Your task to perform on an android device: open app "Google Maps" Image 0: 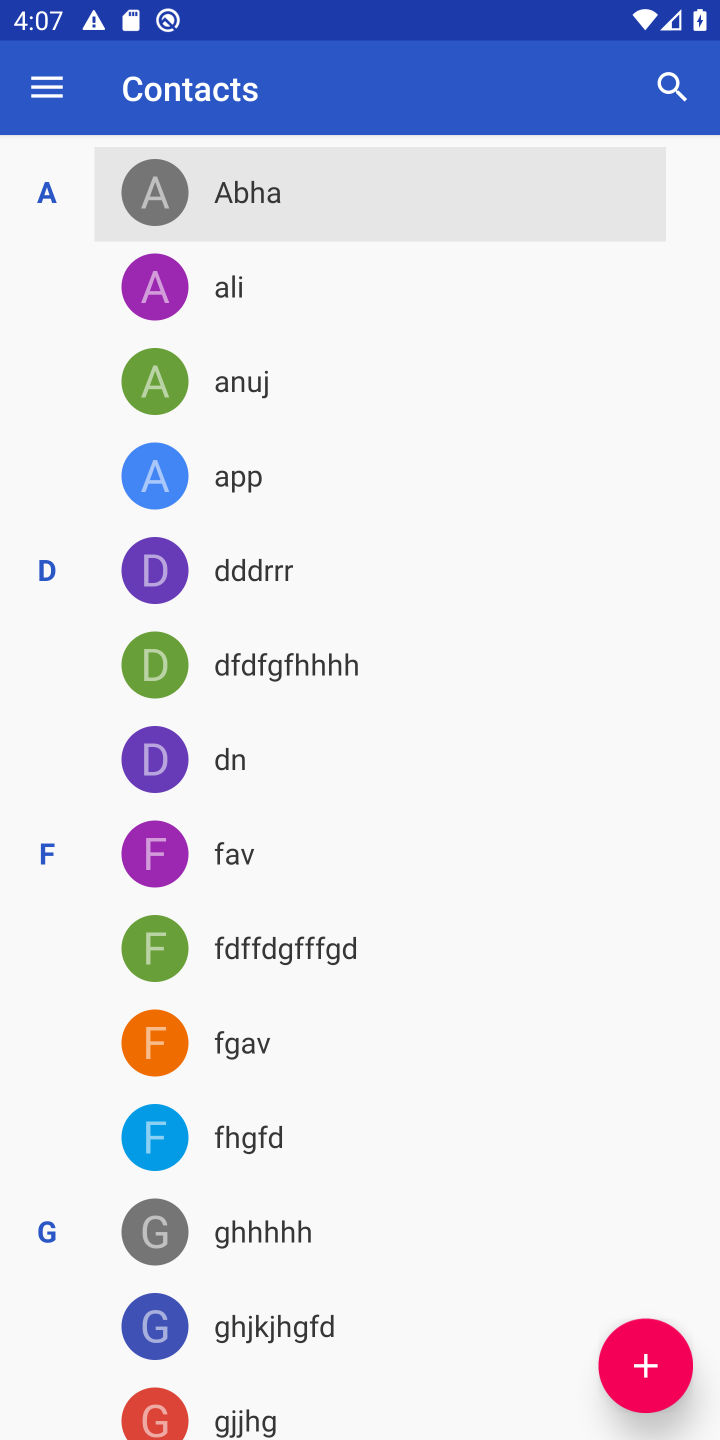
Step 0: press home button
Your task to perform on an android device: open app "Google Maps" Image 1: 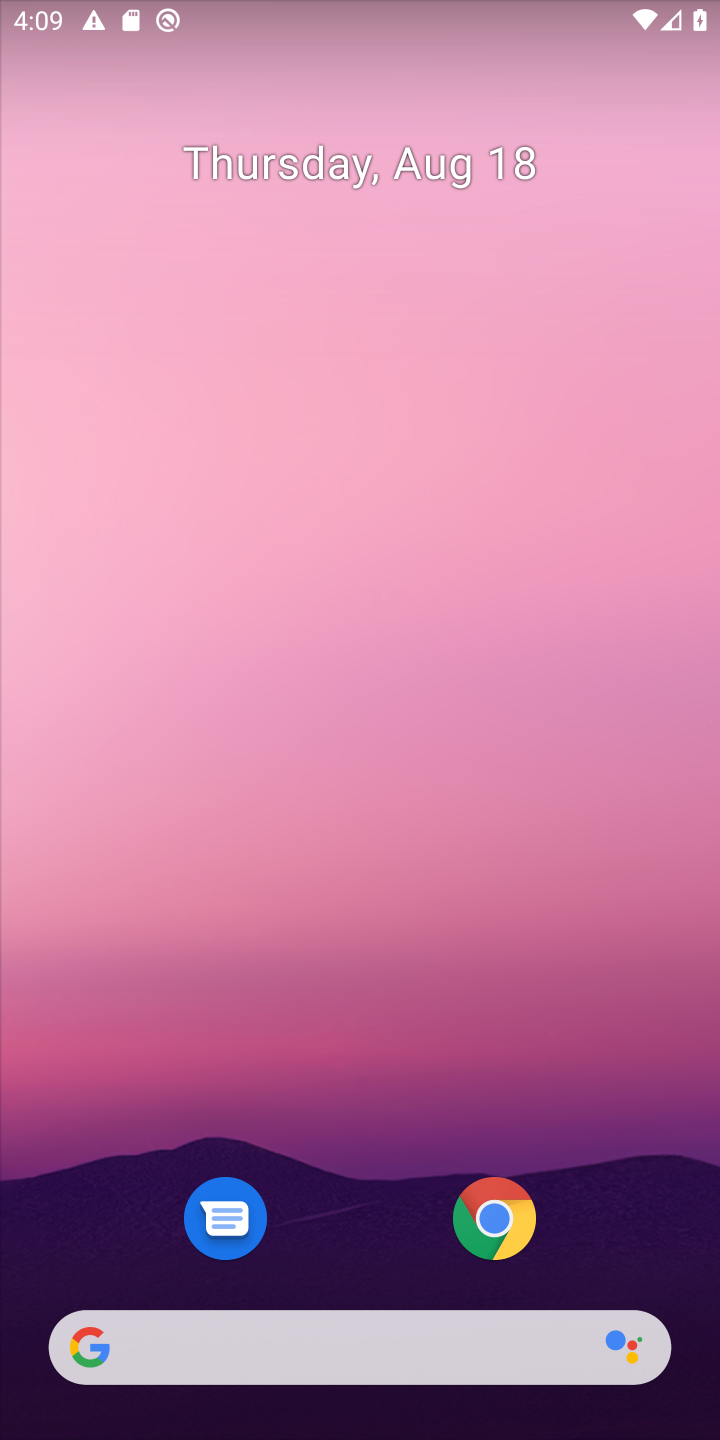
Step 1: drag from (330, 624) to (287, 177)
Your task to perform on an android device: open app "Google Maps" Image 2: 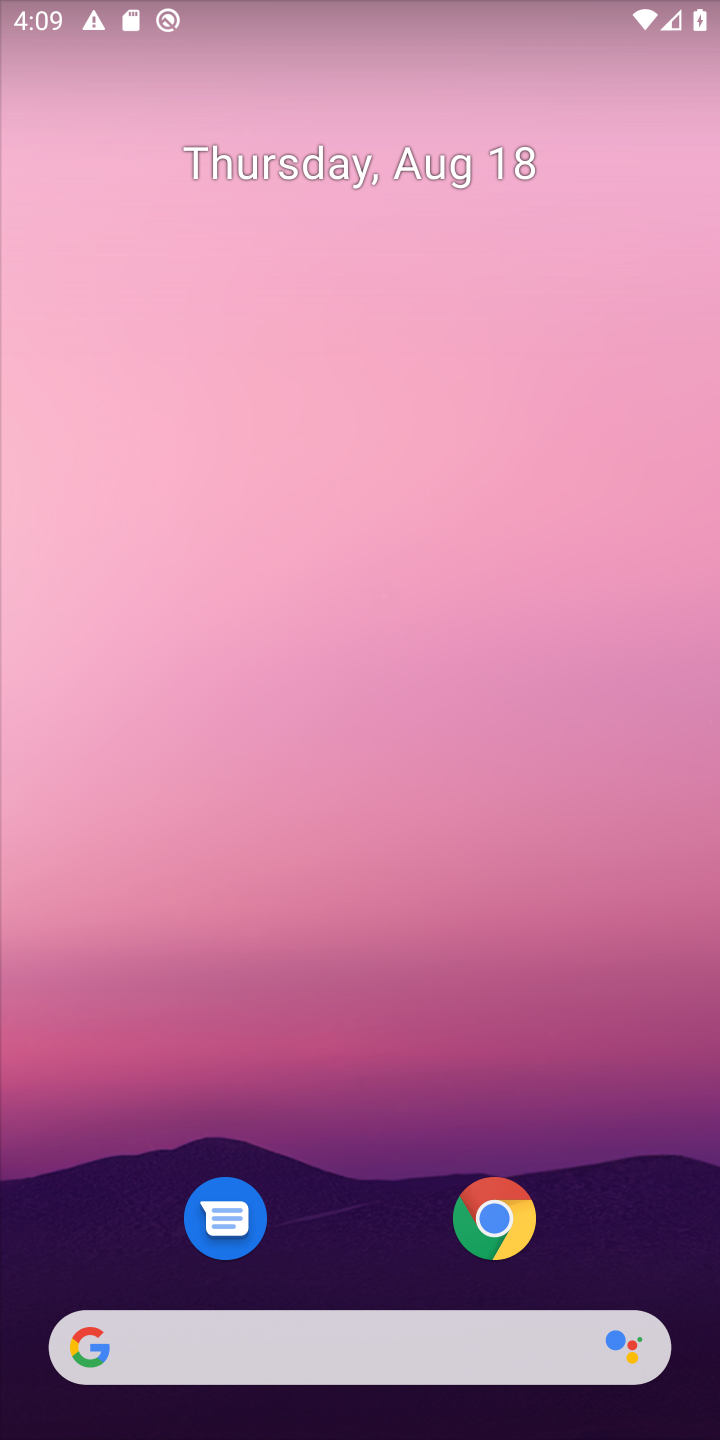
Step 2: drag from (345, 1150) to (413, 231)
Your task to perform on an android device: open app "Google Maps" Image 3: 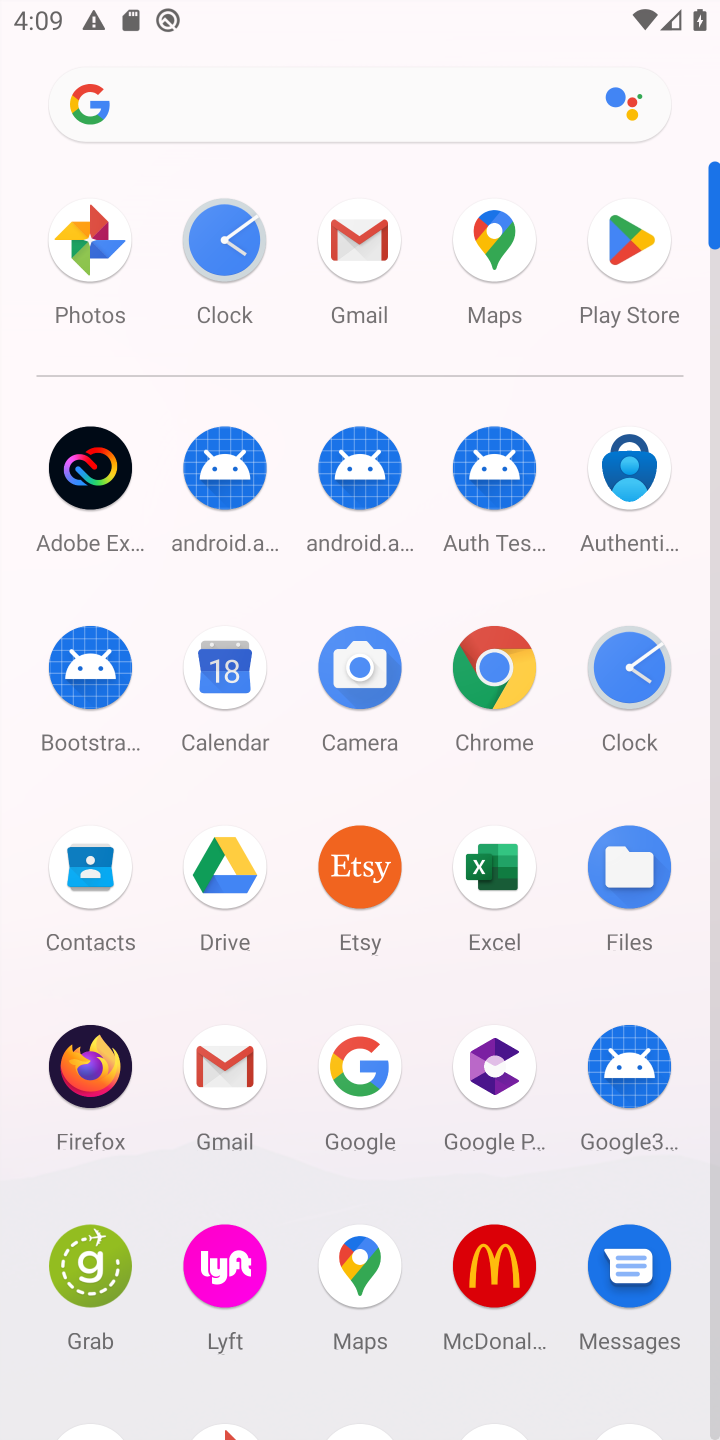
Step 3: click (515, 256)
Your task to perform on an android device: open app "Google Maps" Image 4: 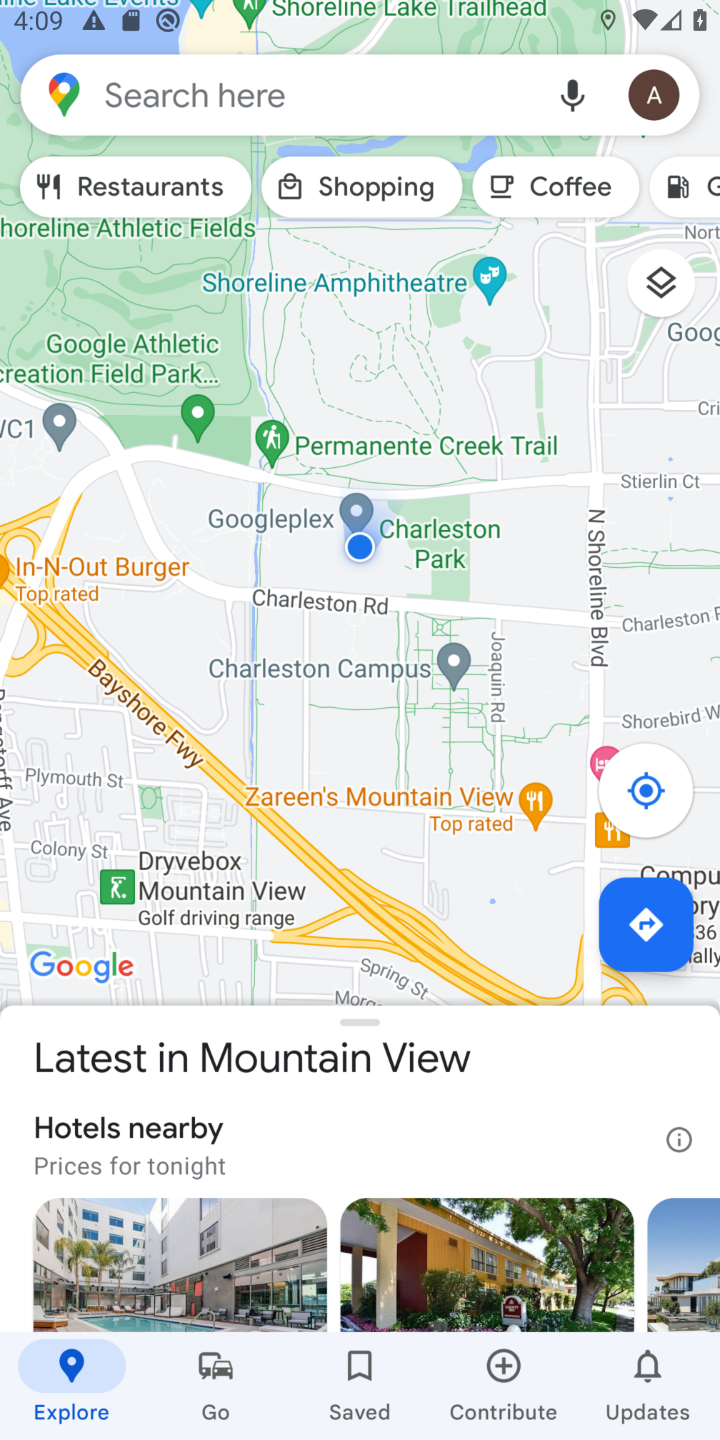
Step 4: click (269, 96)
Your task to perform on an android device: open app "Google Maps" Image 5: 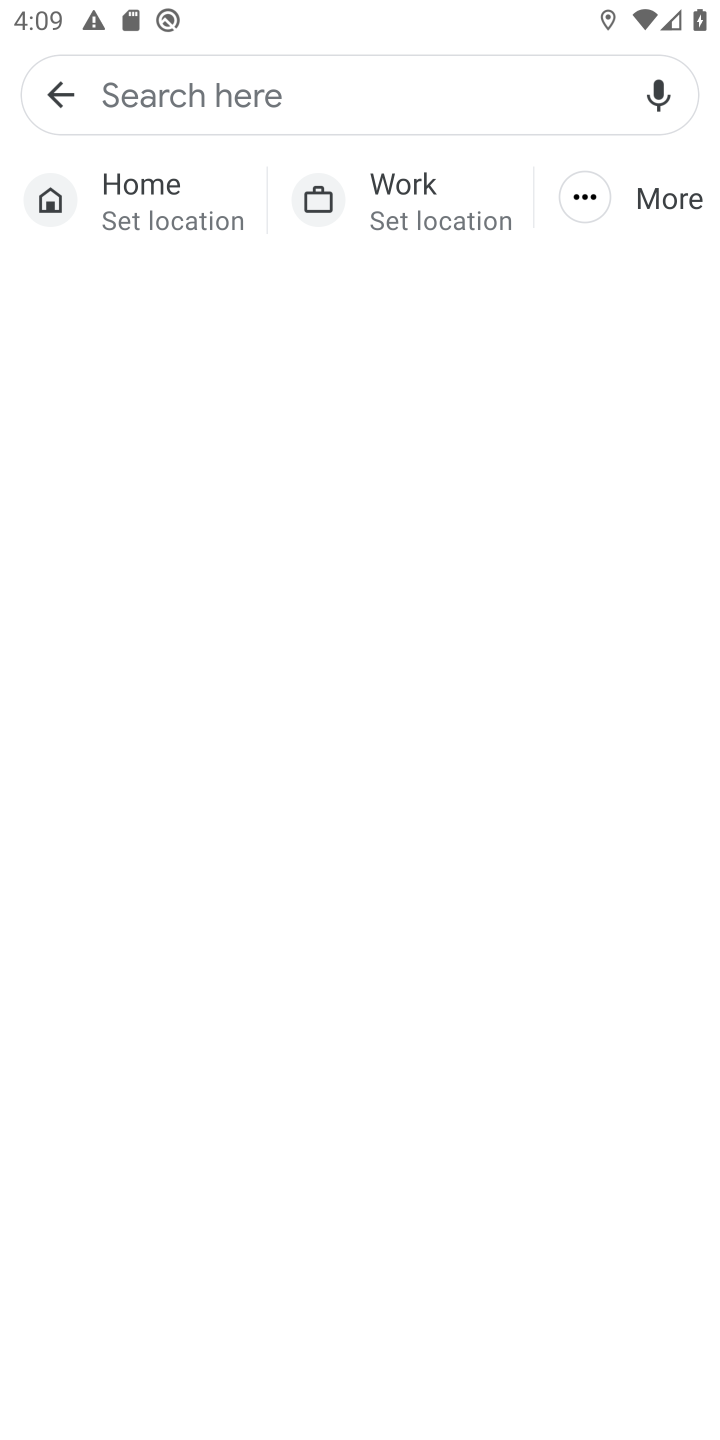
Step 5: task complete